Your task to perform on an android device: change timer sound Image 0: 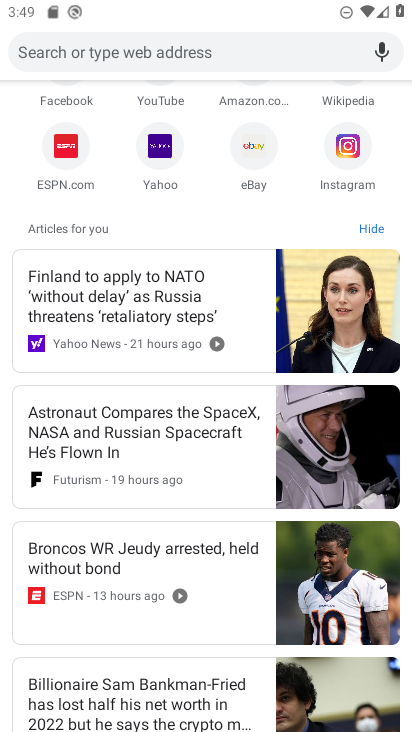
Step 0: press back button
Your task to perform on an android device: change timer sound Image 1: 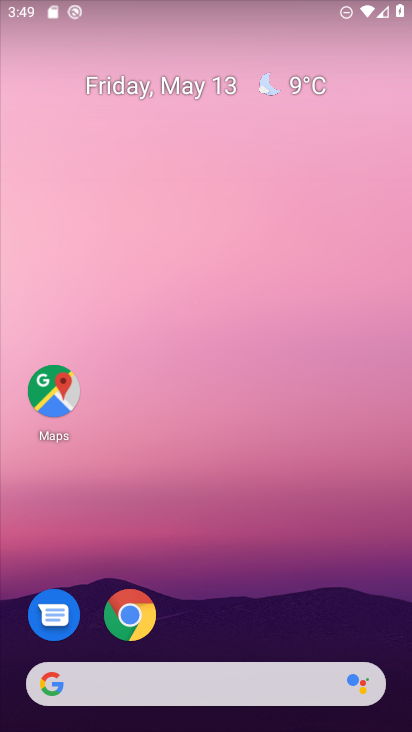
Step 1: drag from (245, 538) to (283, 53)
Your task to perform on an android device: change timer sound Image 2: 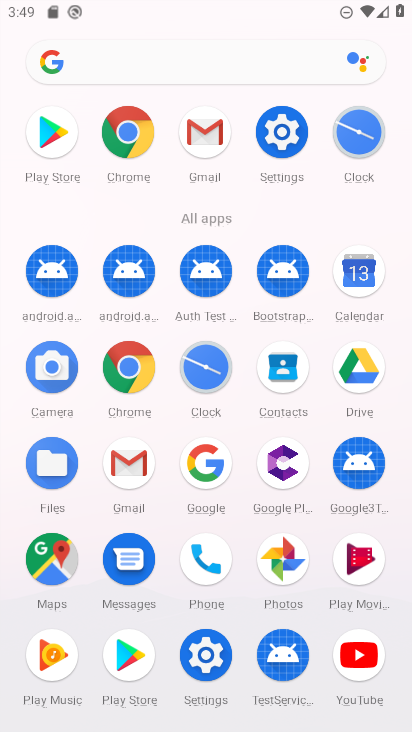
Step 2: click (200, 387)
Your task to perform on an android device: change timer sound Image 3: 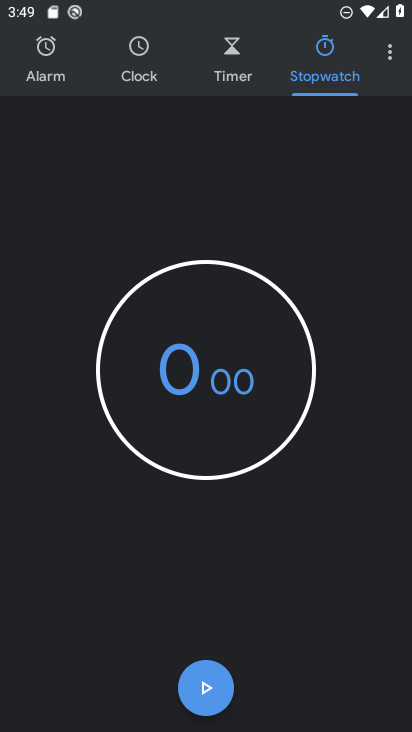
Step 3: drag from (387, 52) to (370, 81)
Your task to perform on an android device: change timer sound Image 4: 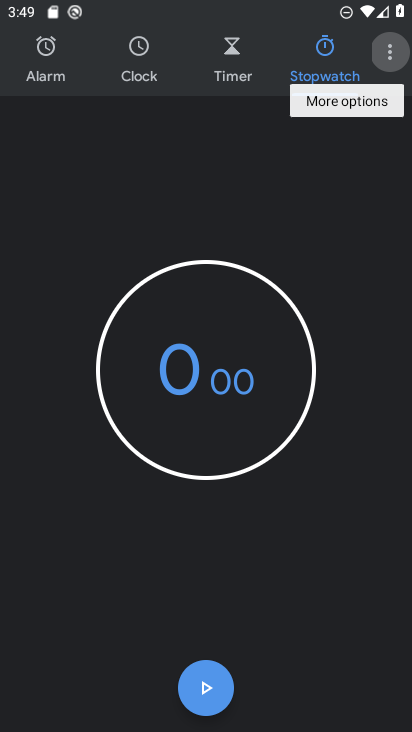
Step 4: click (394, 49)
Your task to perform on an android device: change timer sound Image 5: 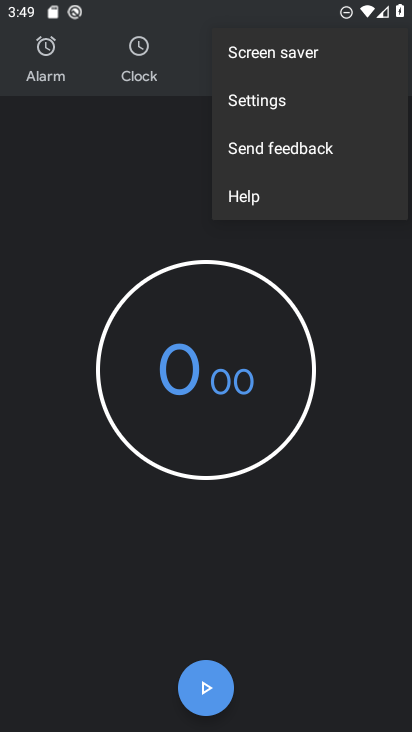
Step 5: click (287, 111)
Your task to perform on an android device: change timer sound Image 6: 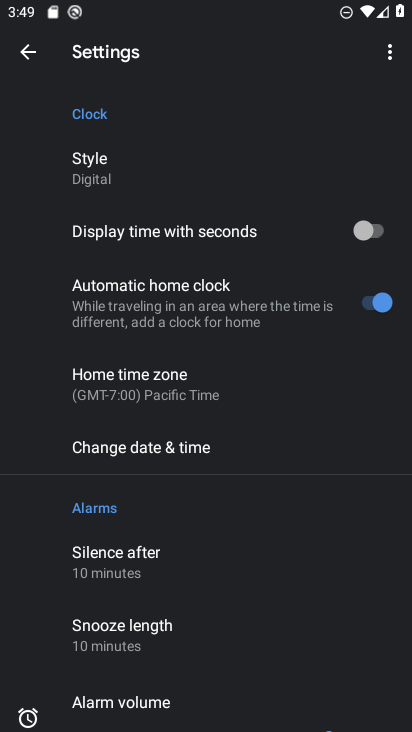
Step 6: drag from (121, 634) to (250, 124)
Your task to perform on an android device: change timer sound Image 7: 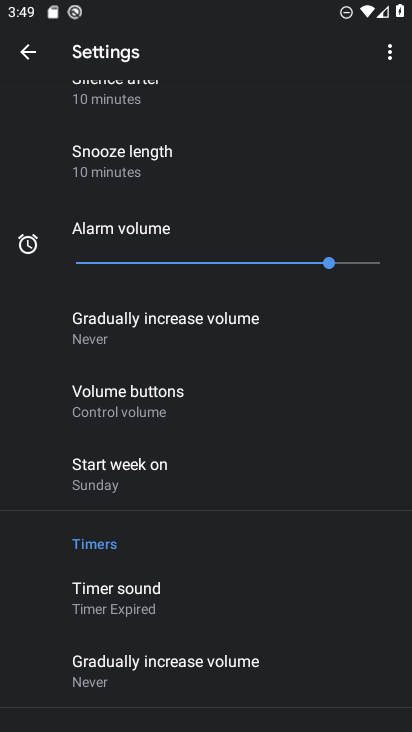
Step 7: click (111, 582)
Your task to perform on an android device: change timer sound Image 8: 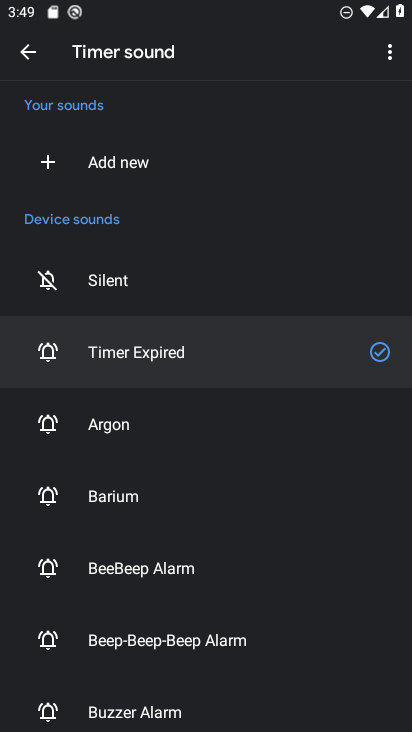
Step 8: click (149, 422)
Your task to perform on an android device: change timer sound Image 9: 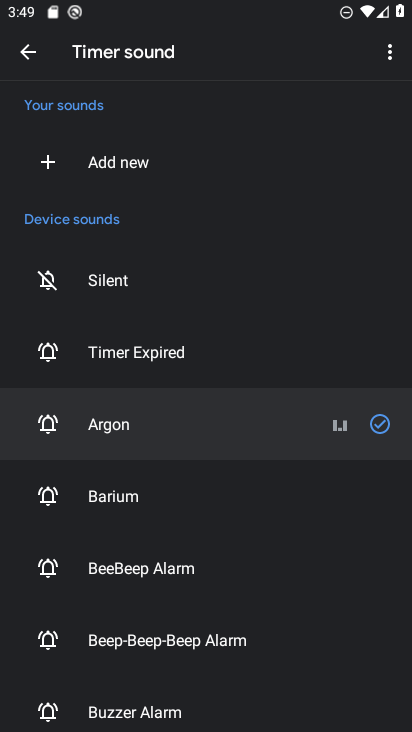
Step 9: task complete